Your task to perform on an android device: toggle notification dots Image 0: 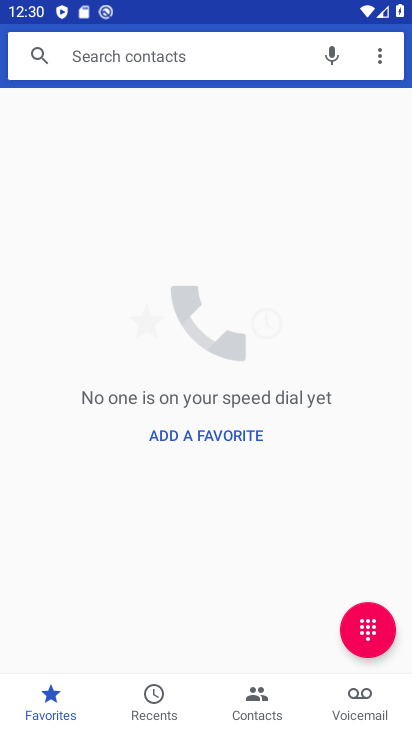
Step 0: press home button
Your task to perform on an android device: toggle notification dots Image 1: 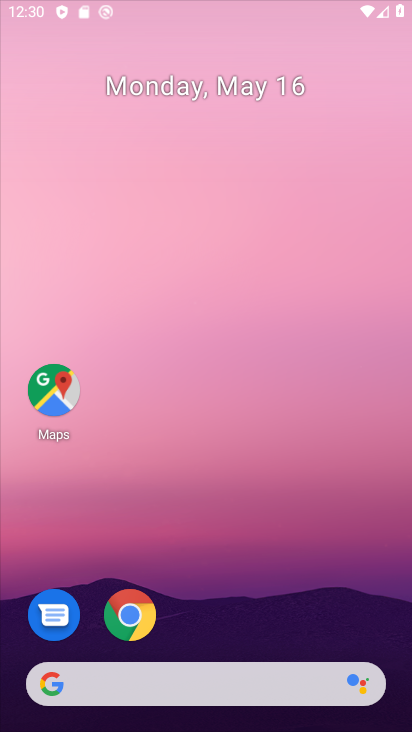
Step 1: drag from (299, 615) to (290, 124)
Your task to perform on an android device: toggle notification dots Image 2: 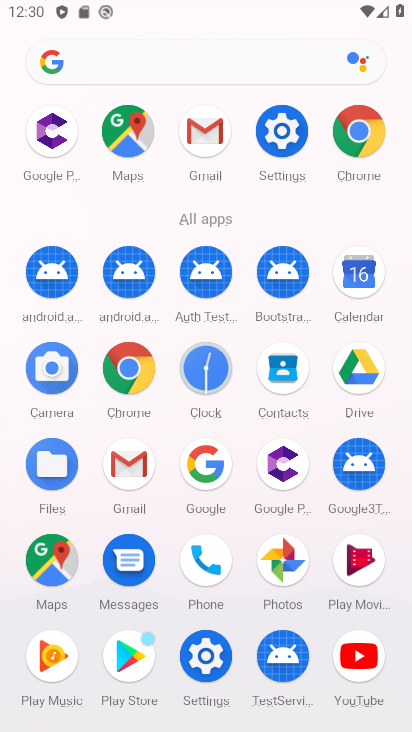
Step 2: click (295, 135)
Your task to perform on an android device: toggle notification dots Image 3: 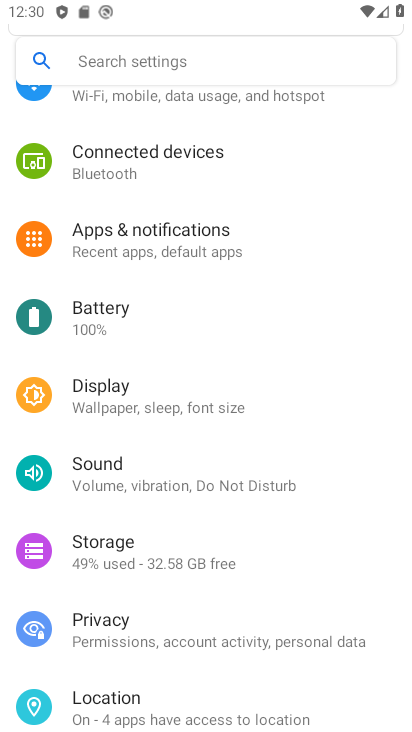
Step 3: click (191, 253)
Your task to perform on an android device: toggle notification dots Image 4: 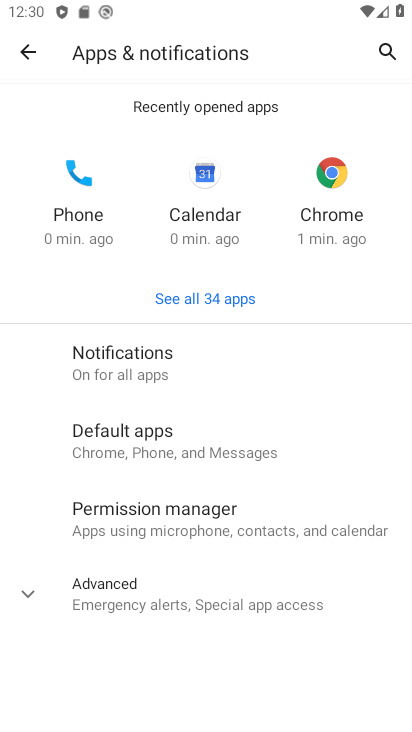
Step 4: click (160, 390)
Your task to perform on an android device: toggle notification dots Image 5: 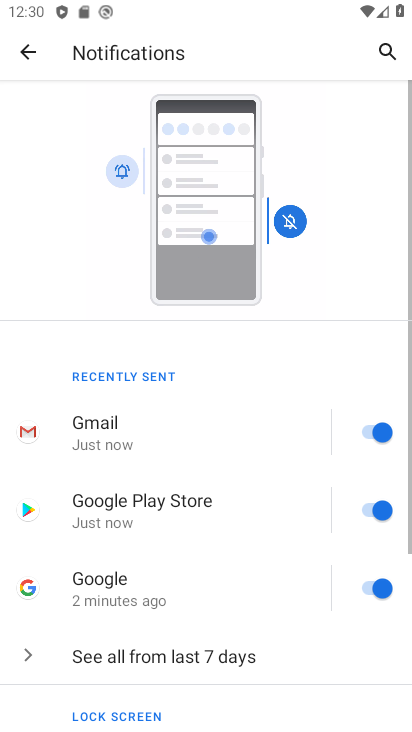
Step 5: drag from (251, 581) to (284, 175)
Your task to perform on an android device: toggle notification dots Image 6: 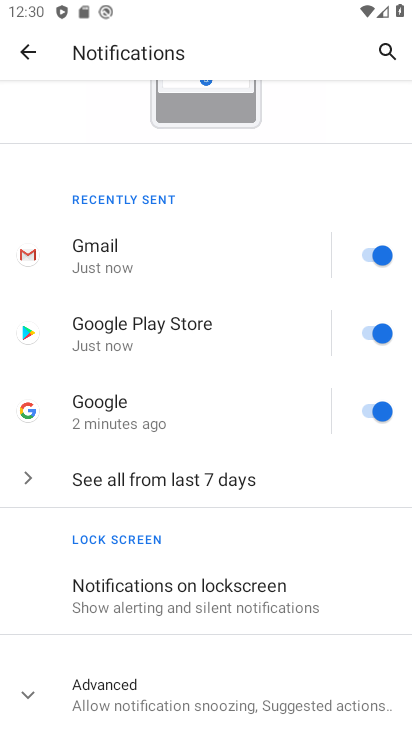
Step 6: click (174, 679)
Your task to perform on an android device: toggle notification dots Image 7: 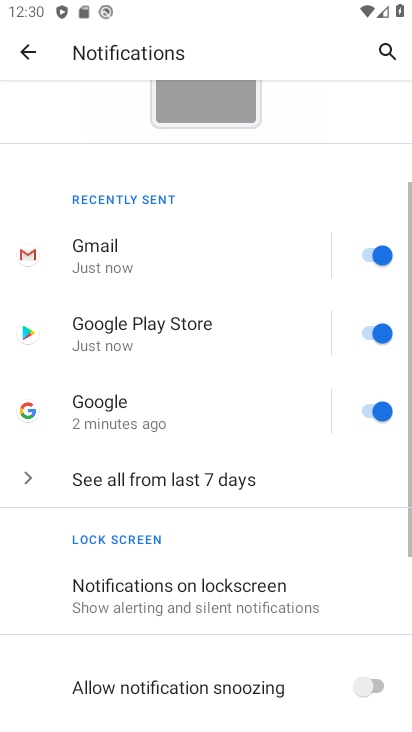
Step 7: drag from (176, 652) to (253, 182)
Your task to perform on an android device: toggle notification dots Image 8: 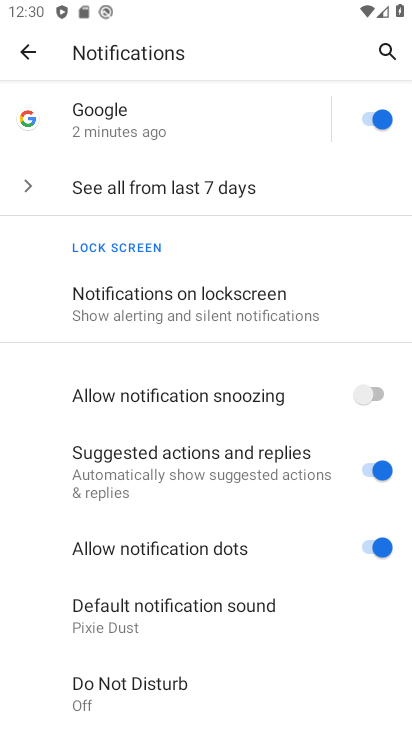
Step 8: click (374, 552)
Your task to perform on an android device: toggle notification dots Image 9: 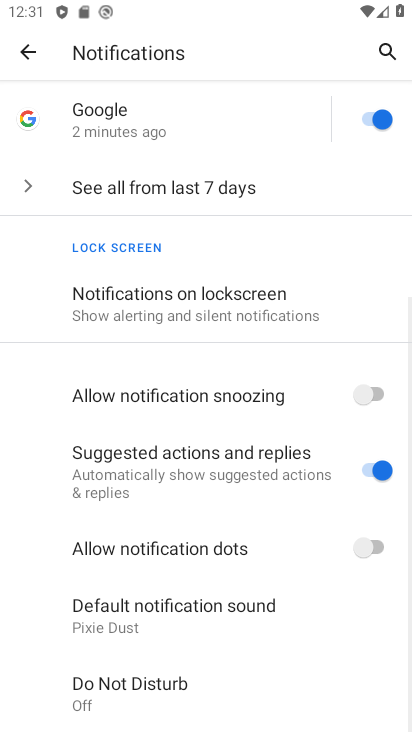
Step 9: task complete